Your task to perform on an android device: Search for seafood restaurants on Google Maps Image 0: 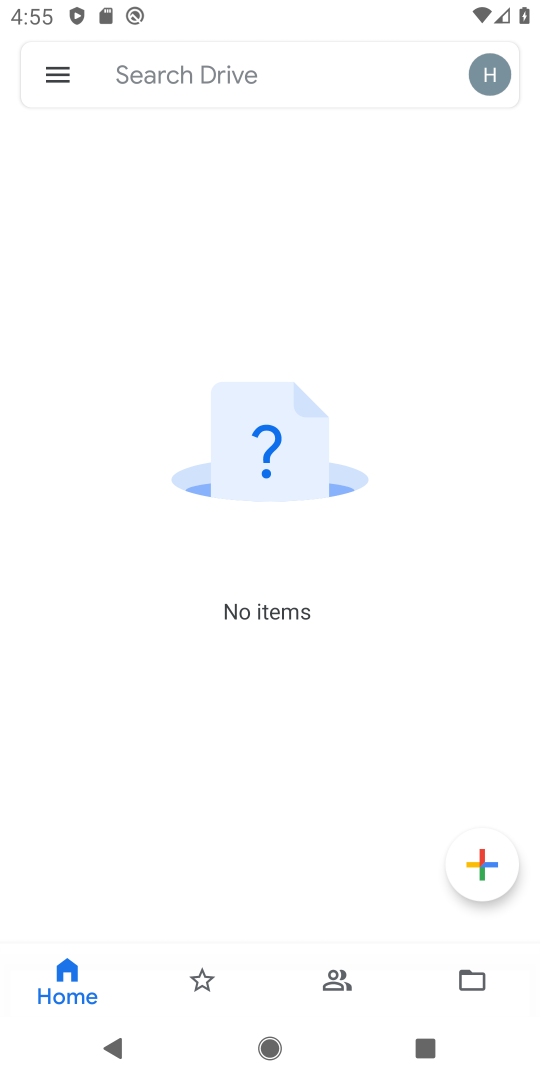
Step 0: press home button
Your task to perform on an android device: Search for seafood restaurants on Google Maps Image 1: 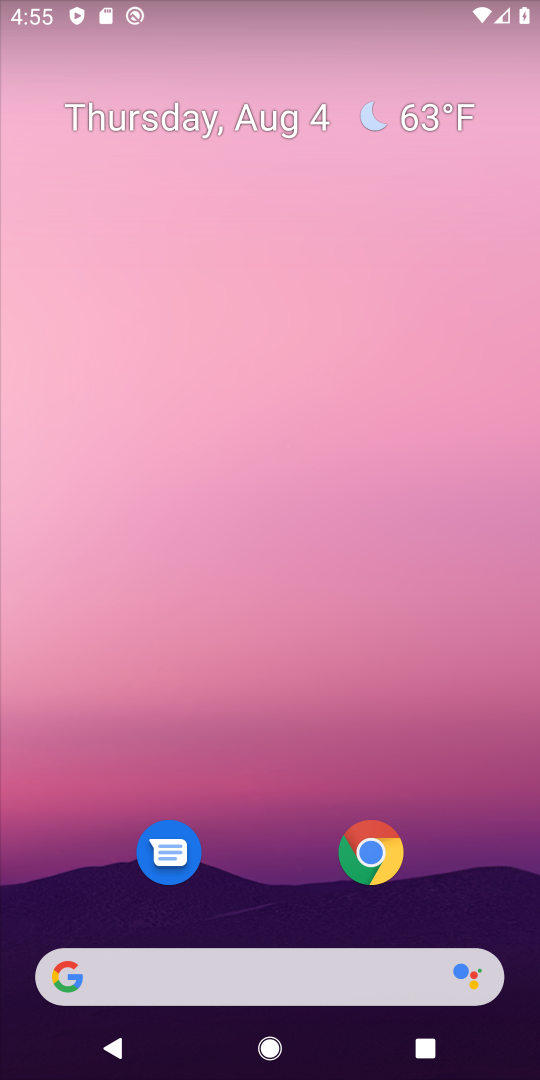
Step 1: drag from (267, 671) to (269, 303)
Your task to perform on an android device: Search for seafood restaurants on Google Maps Image 2: 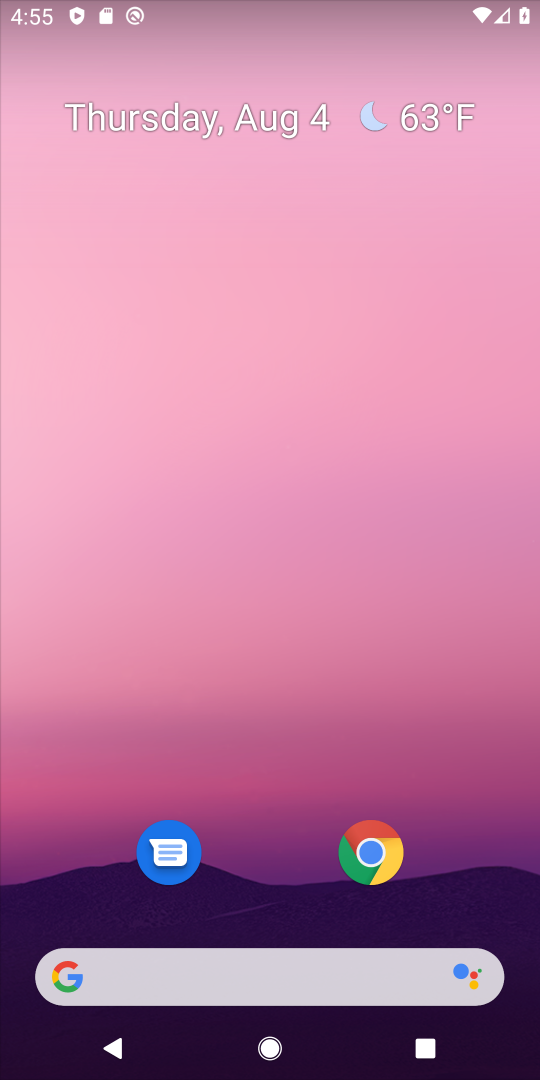
Step 2: drag from (264, 888) to (246, 424)
Your task to perform on an android device: Search for seafood restaurants on Google Maps Image 3: 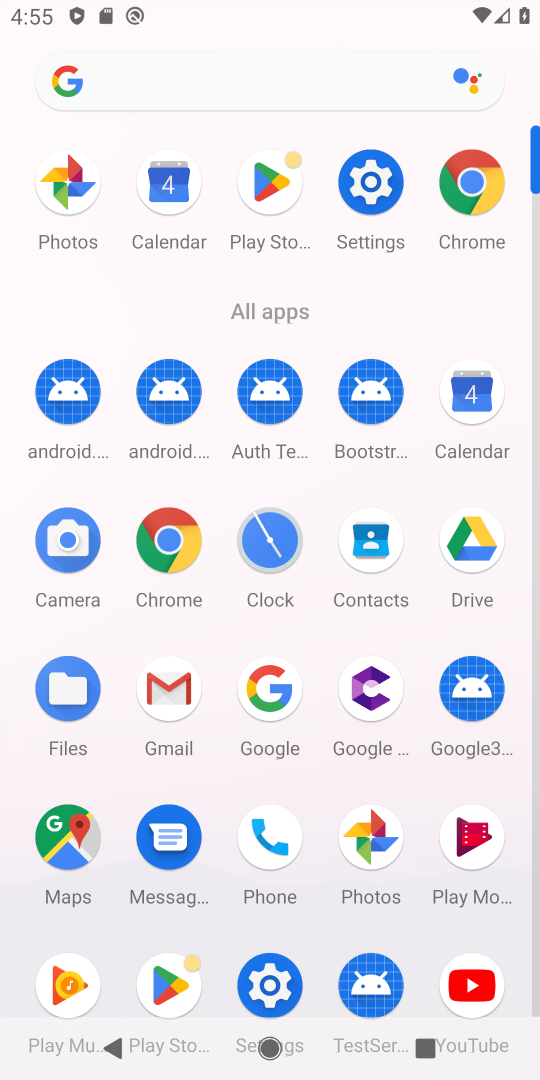
Step 3: click (57, 835)
Your task to perform on an android device: Search for seafood restaurants on Google Maps Image 4: 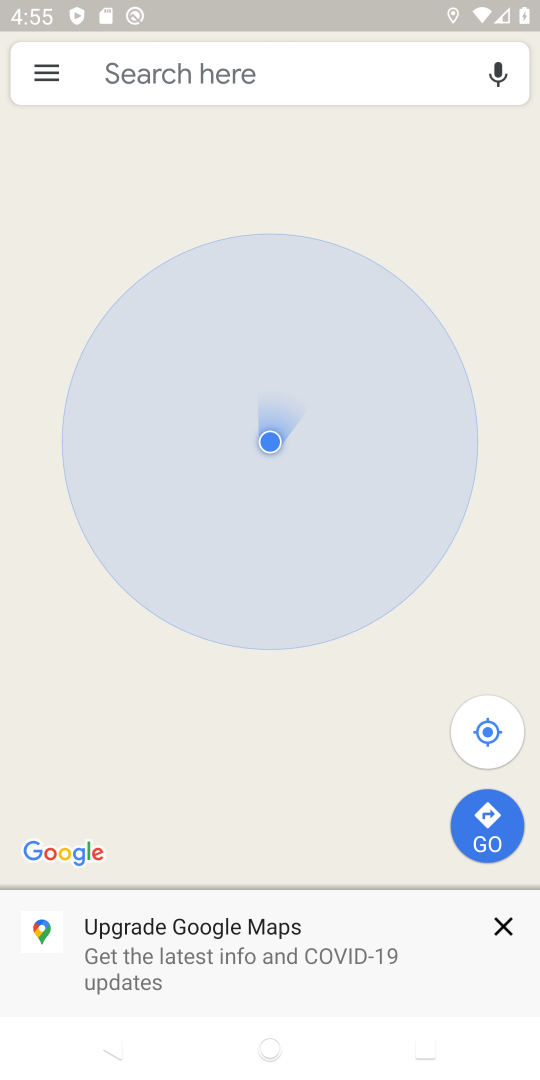
Step 4: click (242, 59)
Your task to perform on an android device: Search for seafood restaurants on Google Maps Image 5: 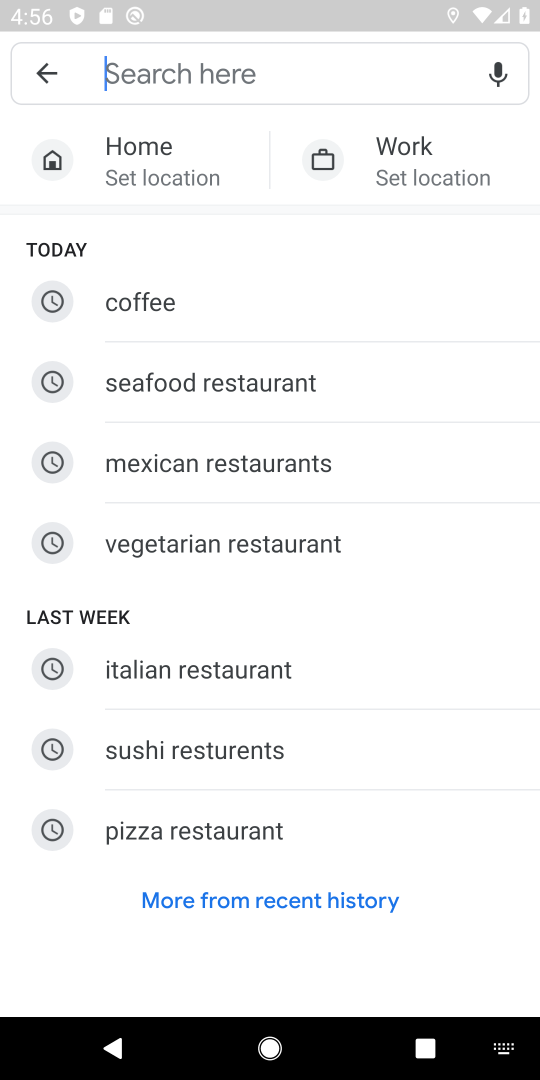
Step 5: type "seafood restaurants"
Your task to perform on an android device: Search for seafood restaurants on Google Maps Image 6: 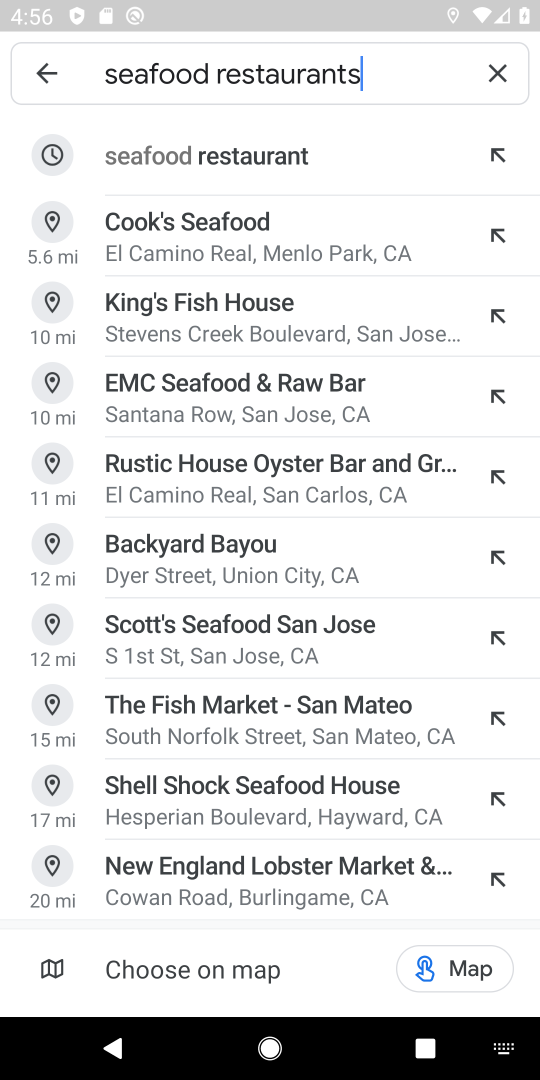
Step 6: click (161, 141)
Your task to perform on an android device: Search for seafood restaurants on Google Maps Image 7: 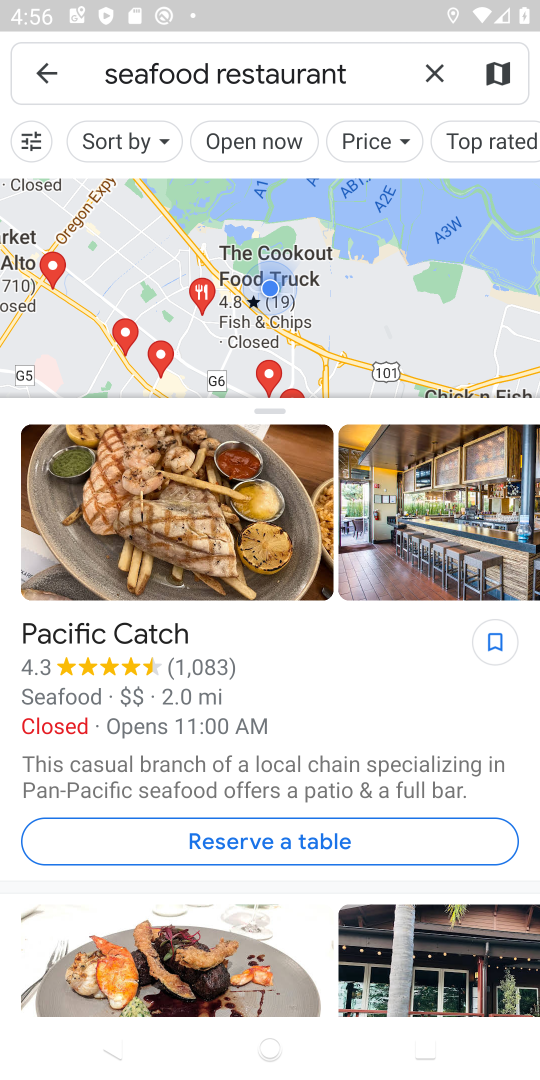
Step 7: task complete